Your task to perform on an android device: Open Android settings Image 0: 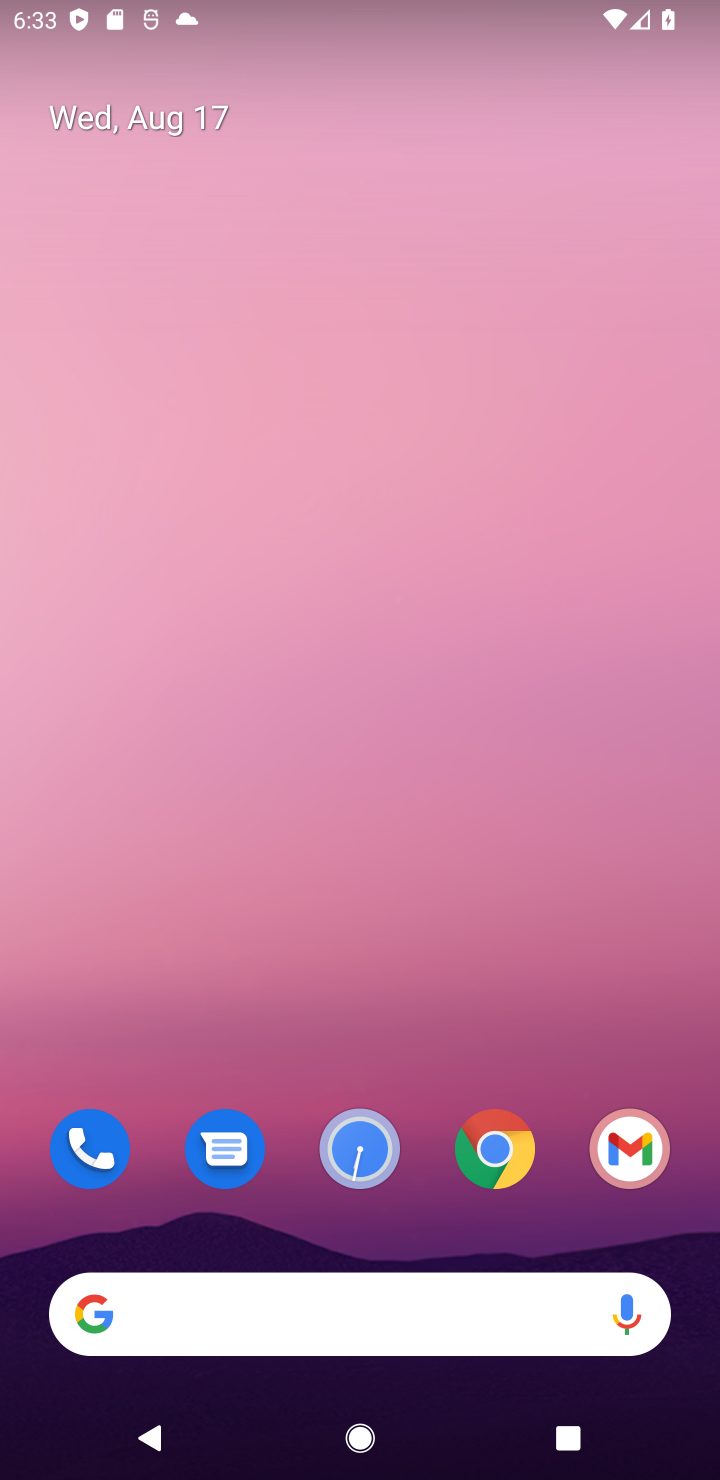
Step 0: drag from (464, 934) to (332, 283)
Your task to perform on an android device: Open Android settings Image 1: 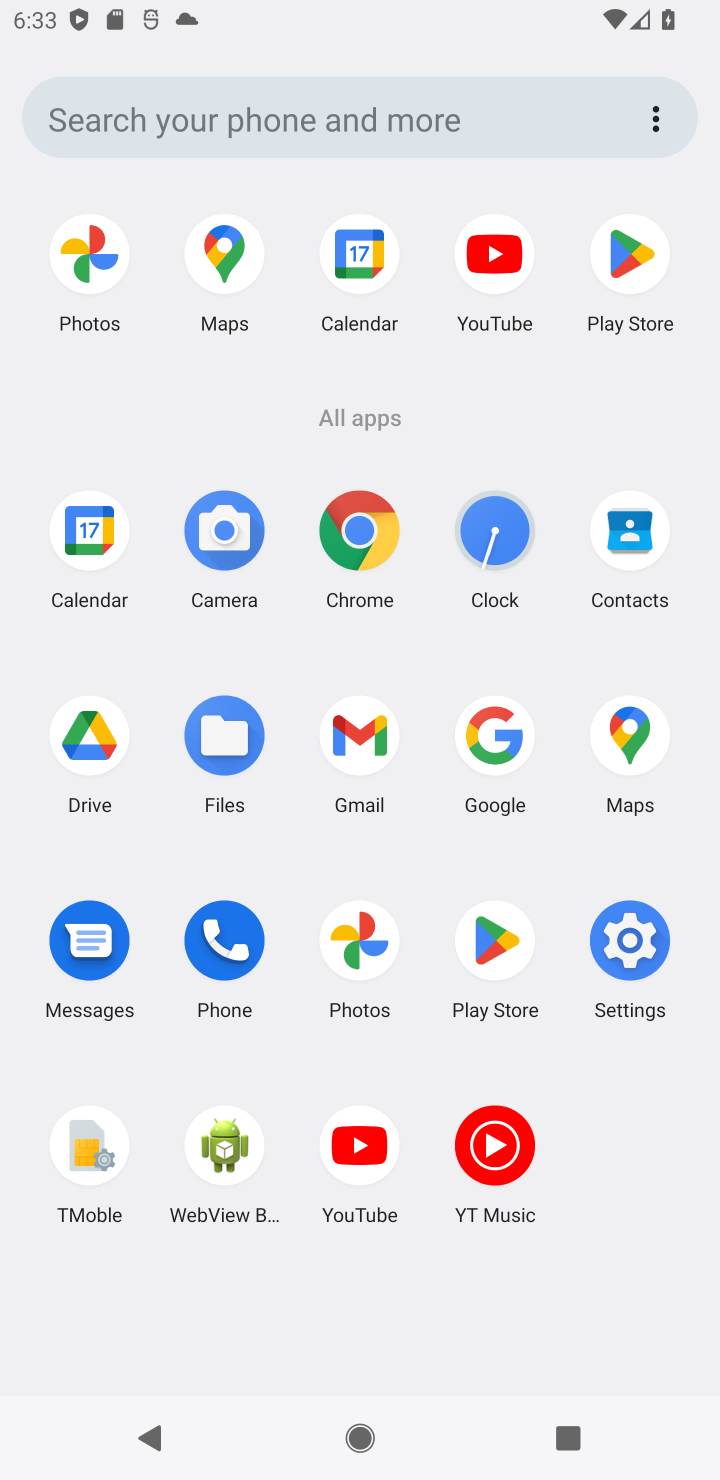
Step 1: click (631, 944)
Your task to perform on an android device: Open Android settings Image 2: 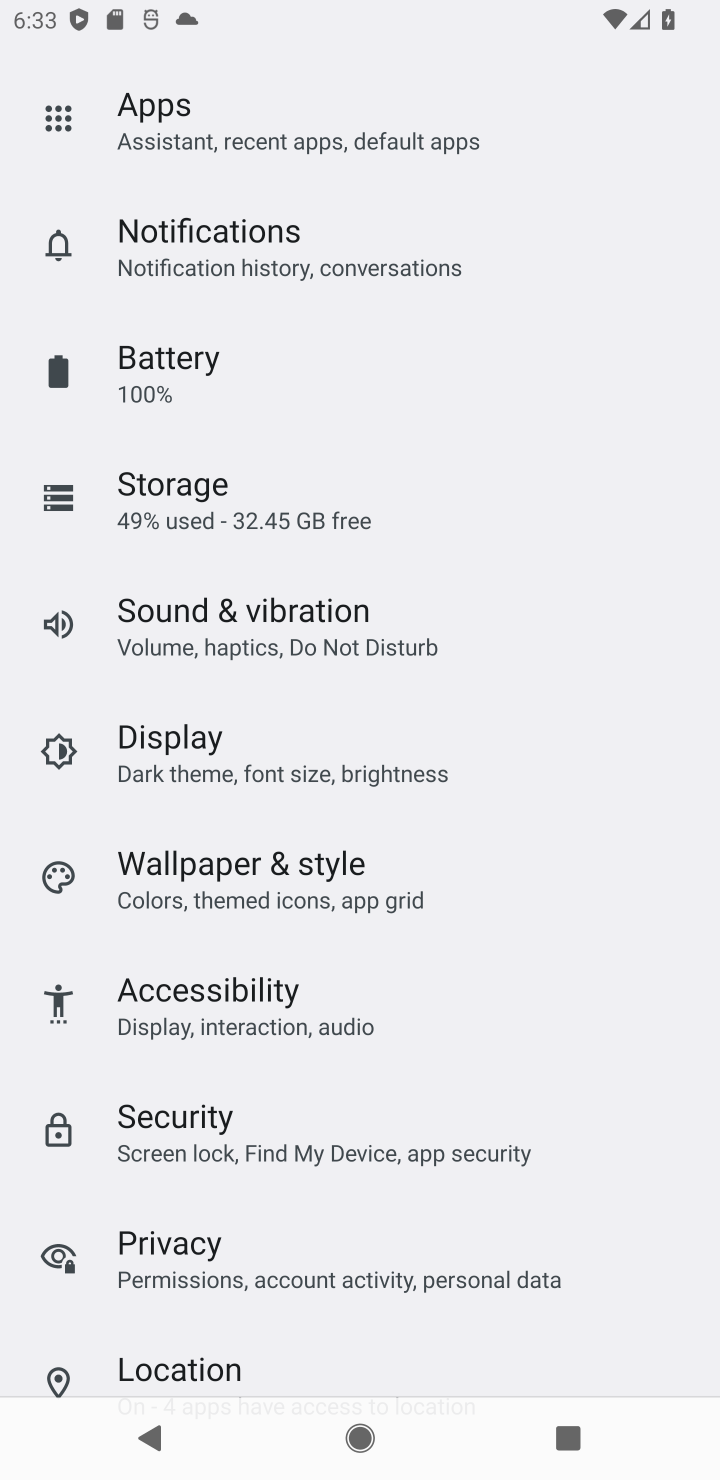
Step 2: task complete